Your task to perform on an android device: set an alarm Image 0: 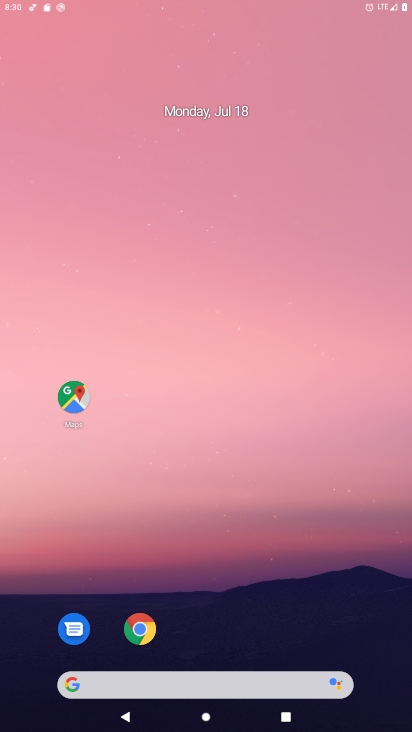
Step 0: click (269, 197)
Your task to perform on an android device: set an alarm Image 1: 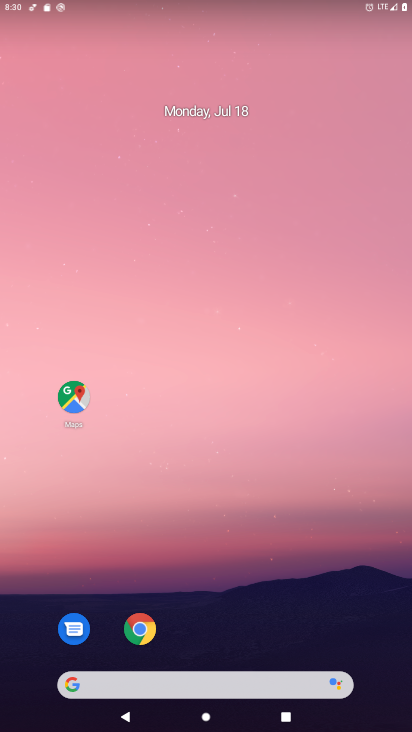
Step 1: drag from (209, 600) to (236, 61)
Your task to perform on an android device: set an alarm Image 2: 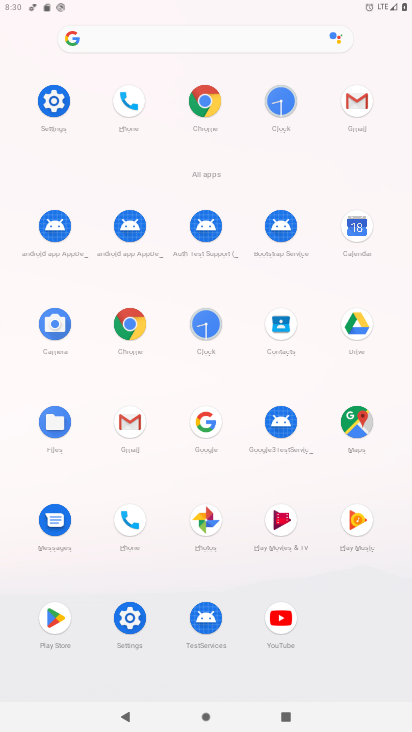
Step 2: click (195, 322)
Your task to perform on an android device: set an alarm Image 3: 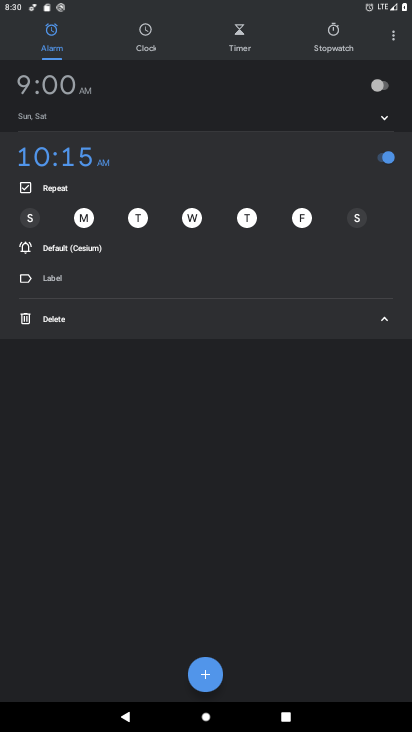
Step 3: click (383, 82)
Your task to perform on an android device: set an alarm Image 4: 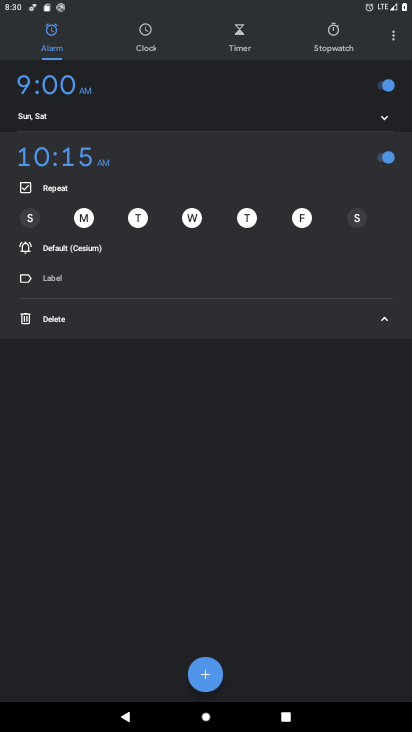
Step 4: task complete